Your task to perform on an android device: uninstall "Truecaller" Image 0: 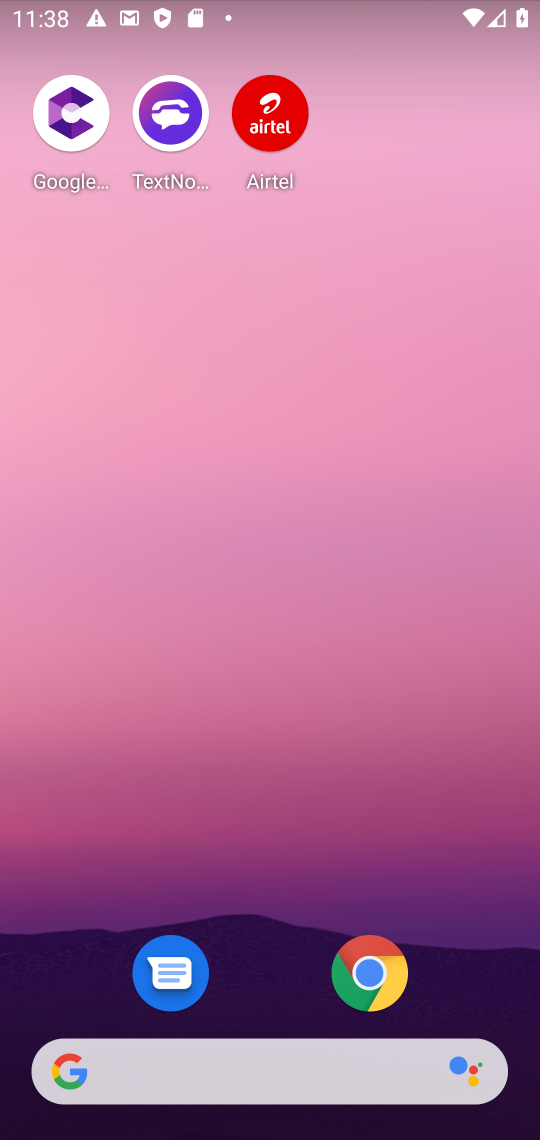
Step 0: drag from (233, 987) to (198, 32)
Your task to perform on an android device: uninstall "Truecaller" Image 1: 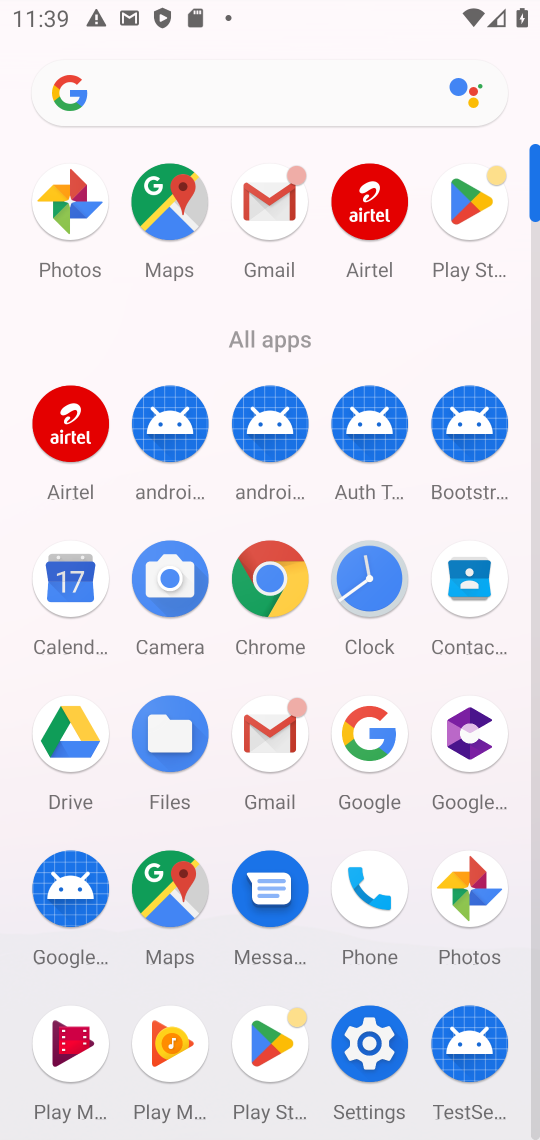
Step 1: click (474, 199)
Your task to perform on an android device: uninstall "Truecaller" Image 2: 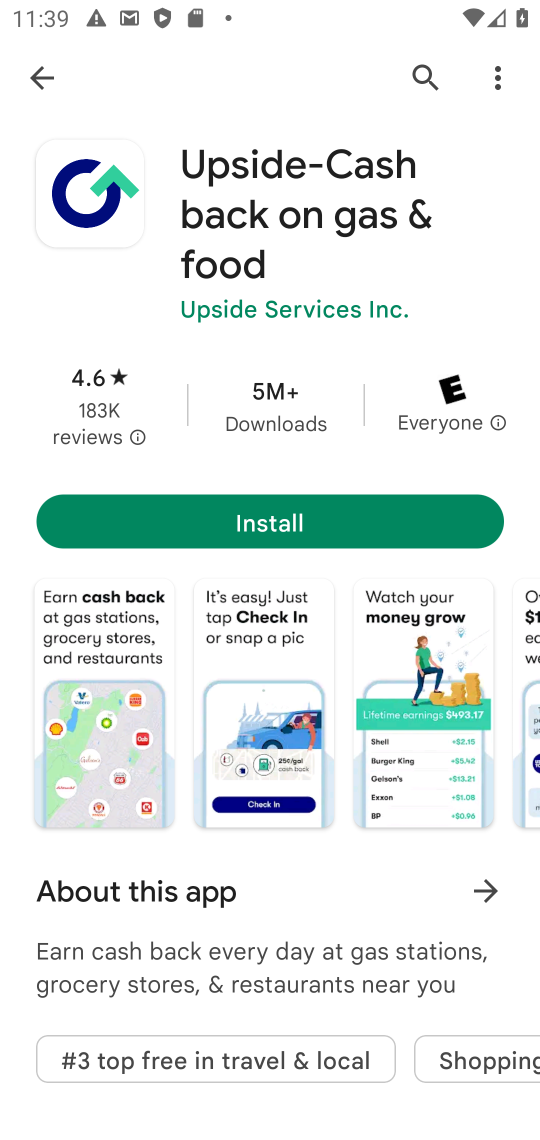
Step 2: click (416, 76)
Your task to perform on an android device: uninstall "Truecaller" Image 3: 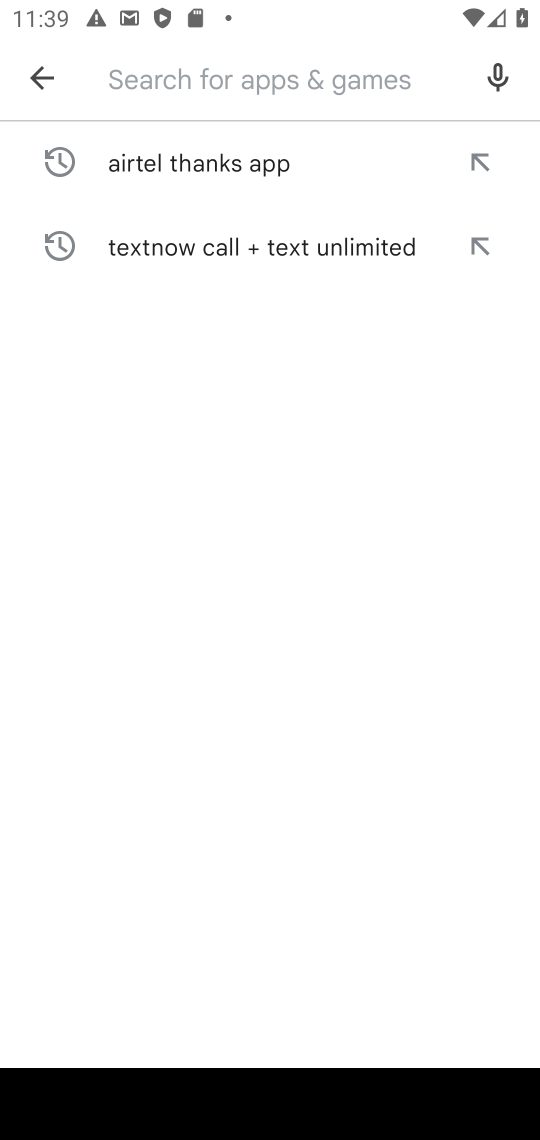
Step 3: type ""
Your task to perform on an android device: uninstall "Truecaller" Image 4: 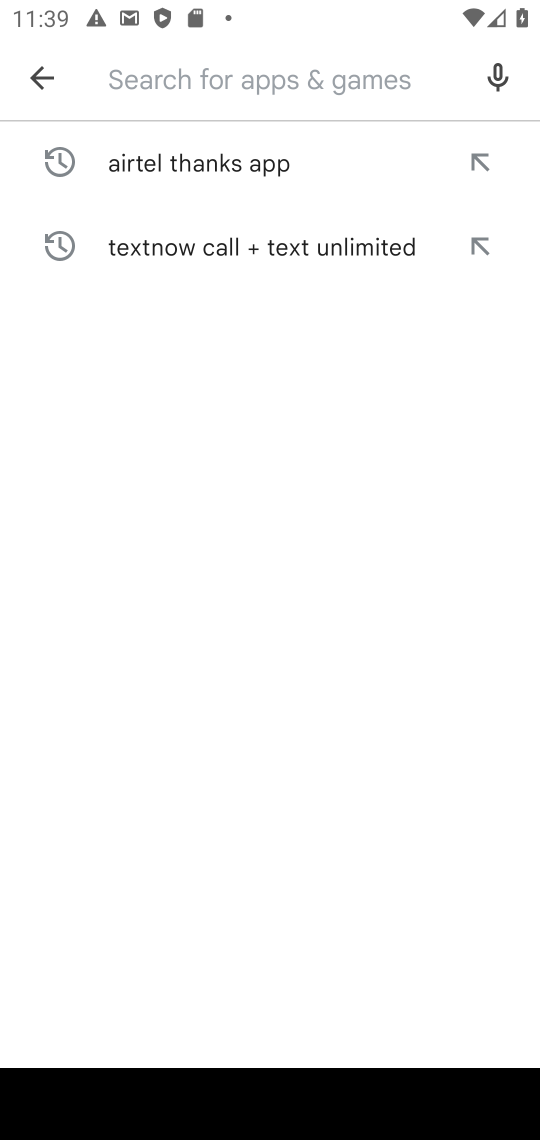
Step 4: type "Truecaller"
Your task to perform on an android device: uninstall "Truecaller" Image 5: 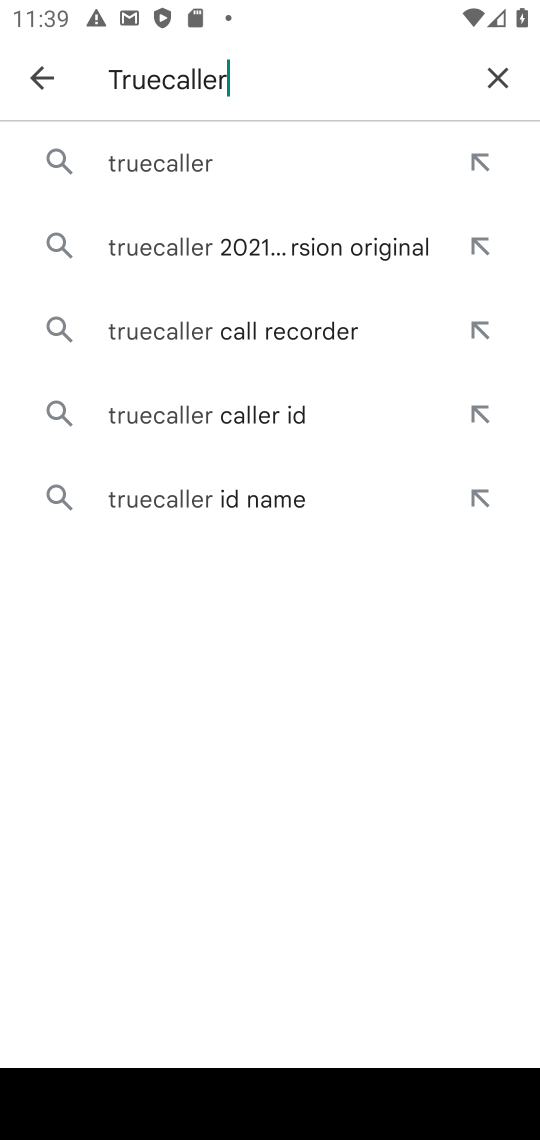
Step 5: click (186, 166)
Your task to perform on an android device: uninstall "Truecaller" Image 6: 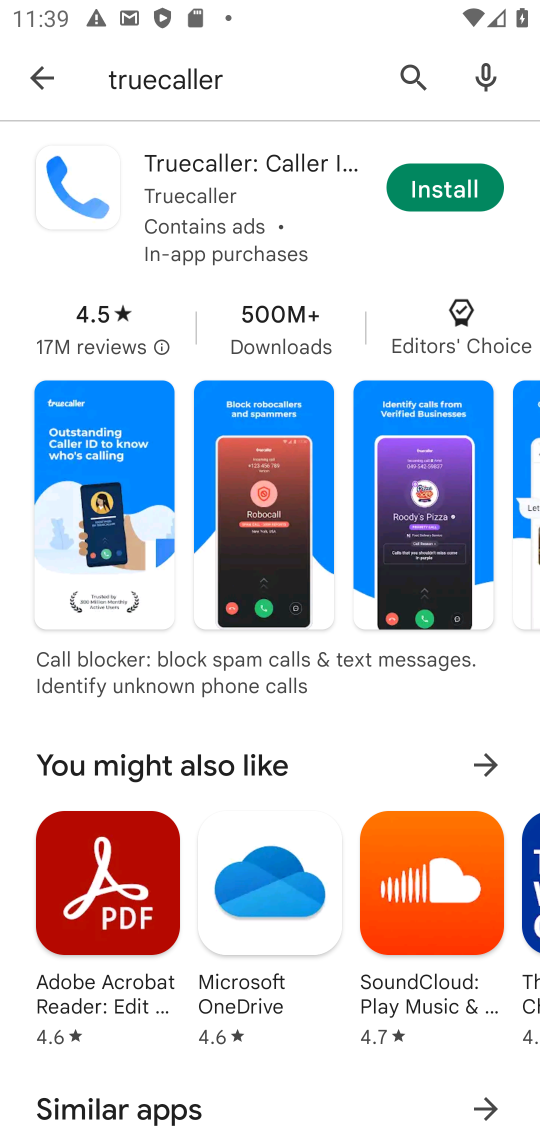
Step 6: click (252, 172)
Your task to perform on an android device: uninstall "Truecaller" Image 7: 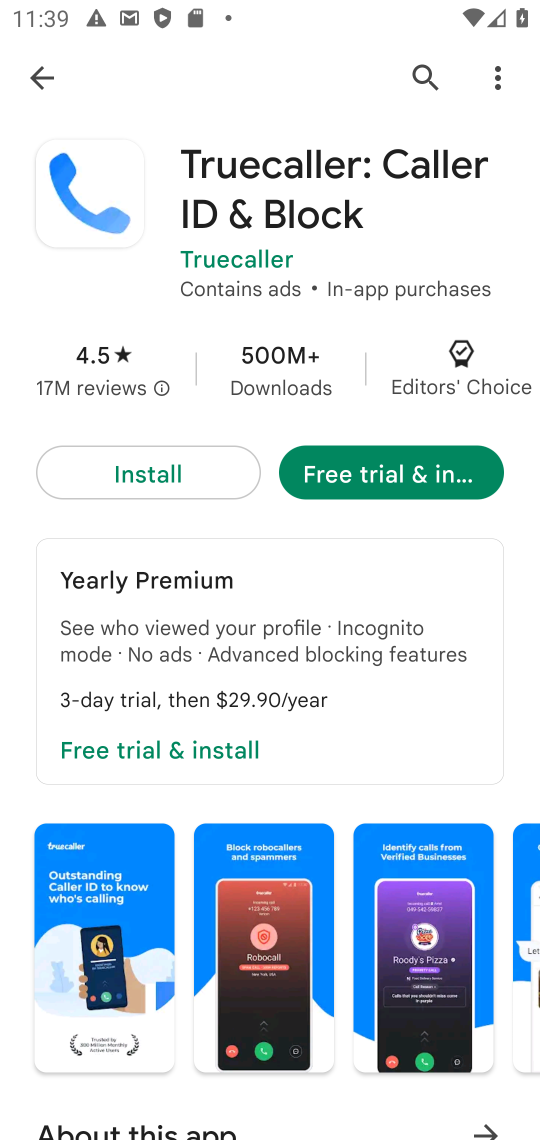
Step 7: task complete